Your task to perform on an android device: empty trash in google photos Image 0: 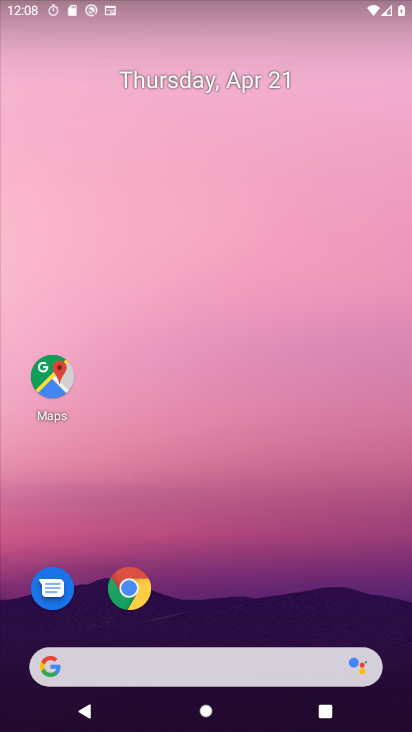
Step 0: press home button
Your task to perform on an android device: empty trash in google photos Image 1: 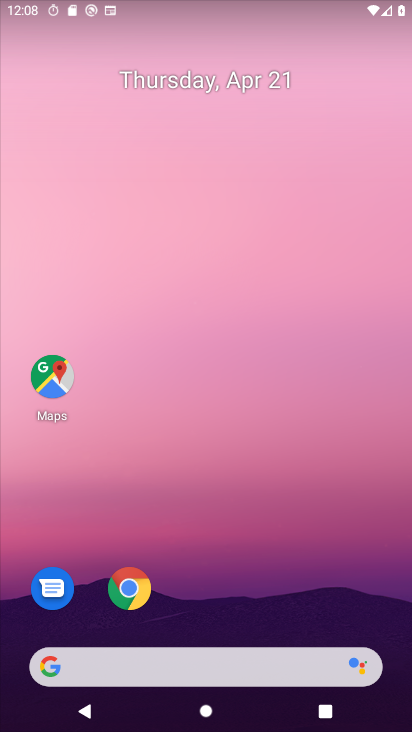
Step 1: drag from (211, 621) to (212, 81)
Your task to perform on an android device: empty trash in google photos Image 2: 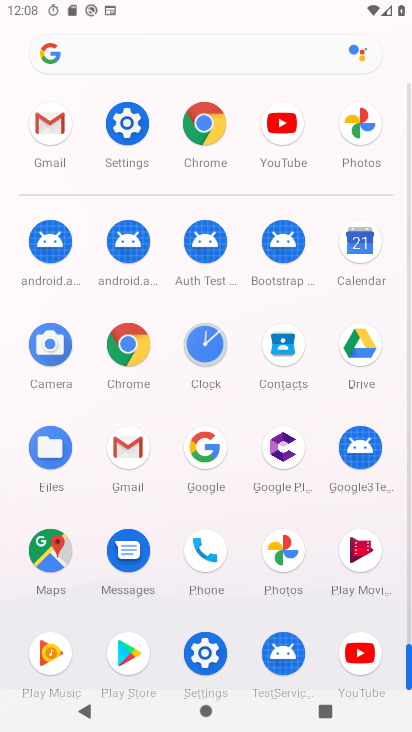
Step 2: click (278, 544)
Your task to perform on an android device: empty trash in google photos Image 3: 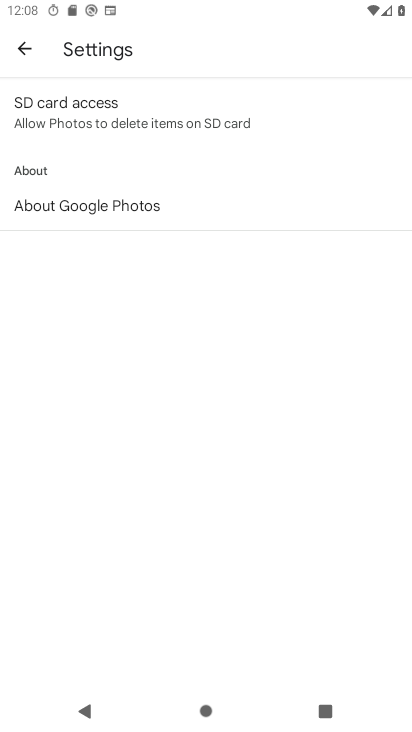
Step 3: click (28, 49)
Your task to perform on an android device: empty trash in google photos Image 4: 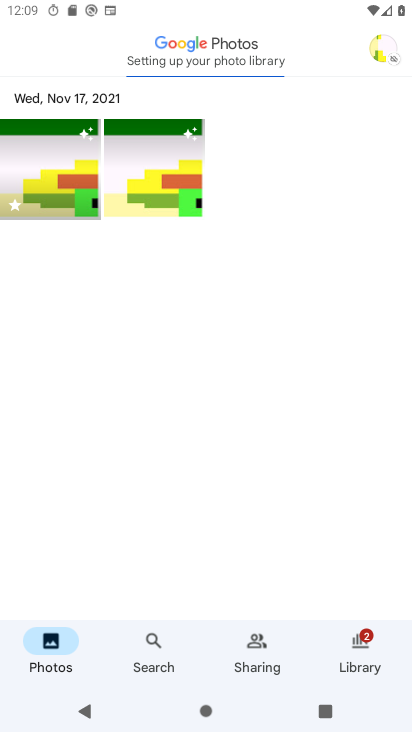
Step 4: click (360, 641)
Your task to perform on an android device: empty trash in google photos Image 5: 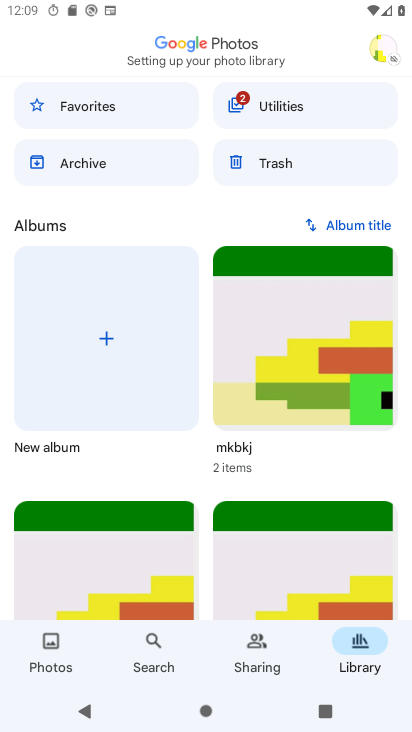
Step 5: click (249, 159)
Your task to perform on an android device: empty trash in google photos Image 6: 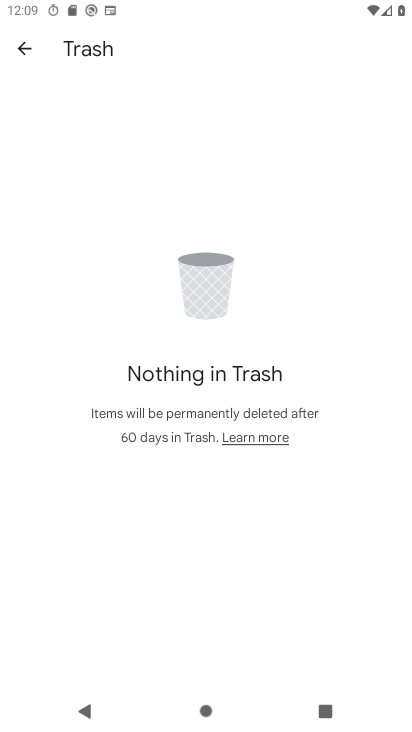
Step 6: task complete